Your task to perform on an android device: toggle priority inbox in the gmail app Image 0: 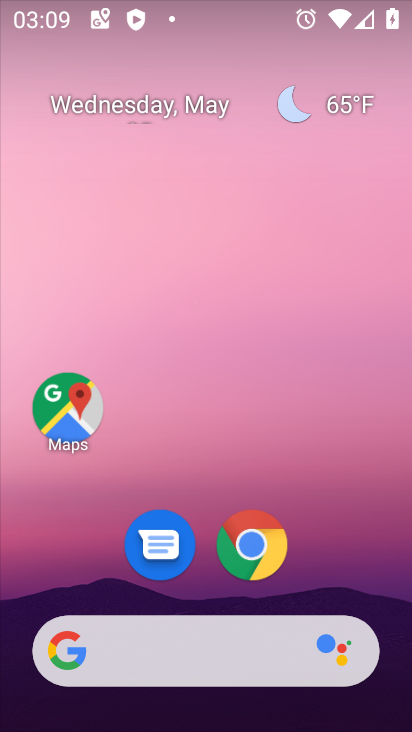
Step 0: drag from (310, 316) to (240, 0)
Your task to perform on an android device: toggle priority inbox in the gmail app Image 1: 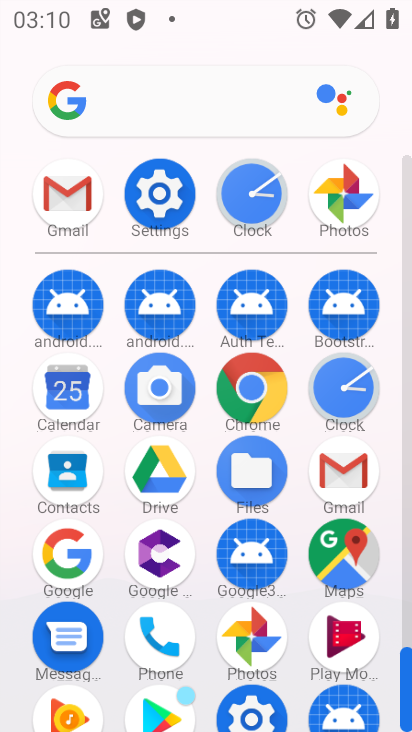
Step 1: click (337, 481)
Your task to perform on an android device: toggle priority inbox in the gmail app Image 2: 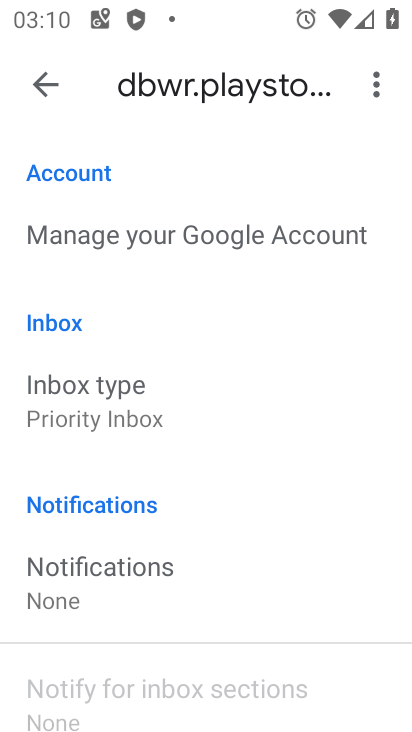
Step 2: click (152, 411)
Your task to perform on an android device: toggle priority inbox in the gmail app Image 3: 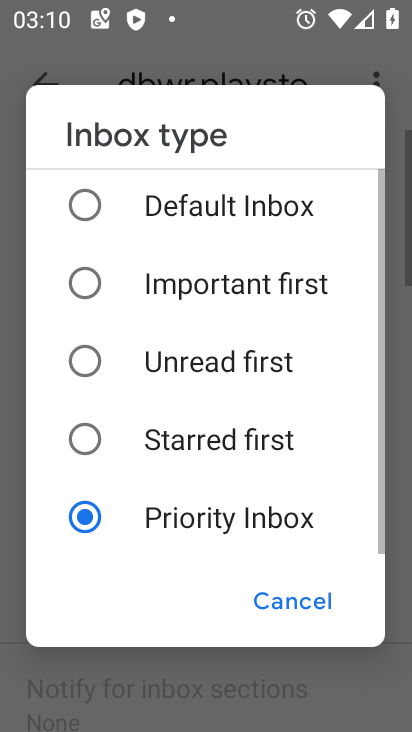
Step 3: click (177, 204)
Your task to perform on an android device: toggle priority inbox in the gmail app Image 4: 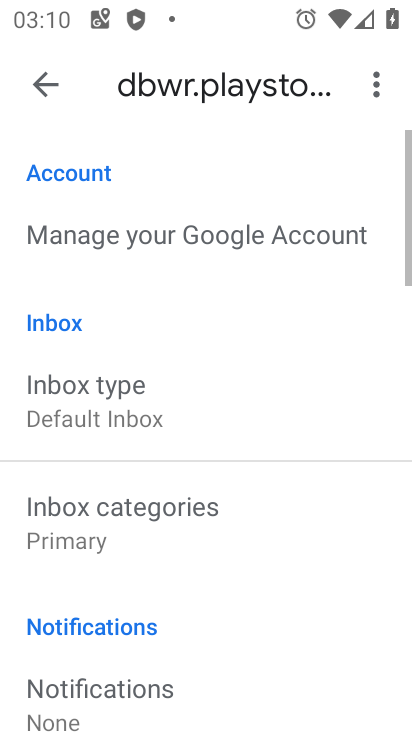
Step 4: task complete